Your task to perform on an android device: add a contact in the contacts app Image 0: 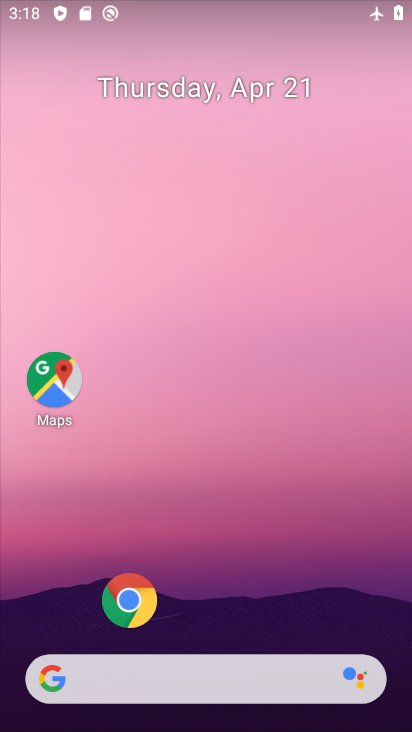
Step 0: drag from (226, 608) to (276, 252)
Your task to perform on an android device: add a contact in the contacts app Image 1: 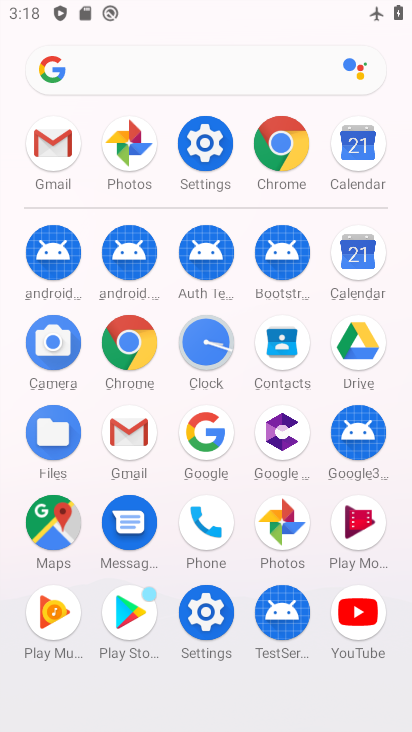
Step 1: click (285, 336)
Your task to perform on an android device: add a contact in the contacts app Image 2: 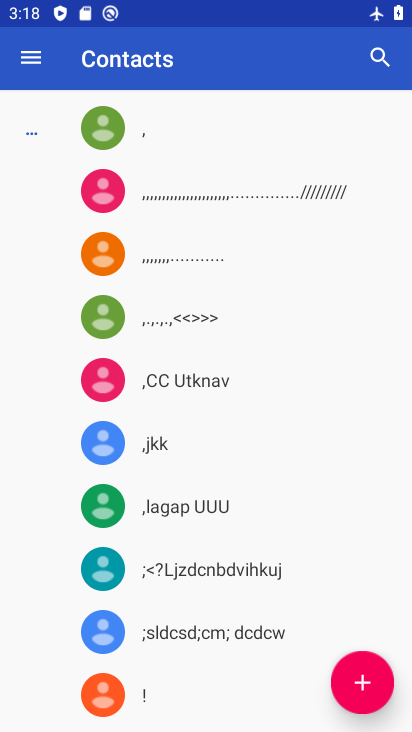
Step 2: click (373, 681)
Your task to perform on an android device: add a contact in the contacts app Image 3: 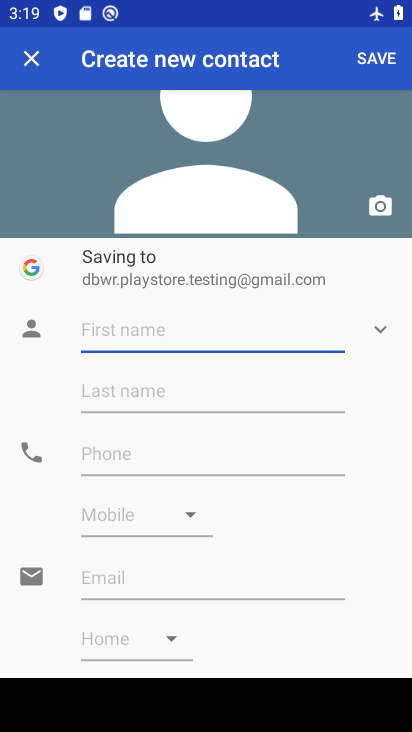
Step 3: click (140, 328)
Your task to perform on an android device: add a contact in the contacts app Image 4: 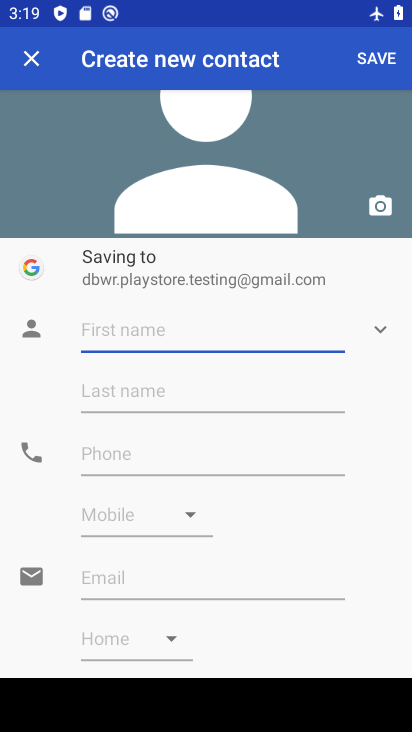
Step 4: type "fgfgffffff"
Your task to perform on an android device: add a contact in the contacts app Image 5: 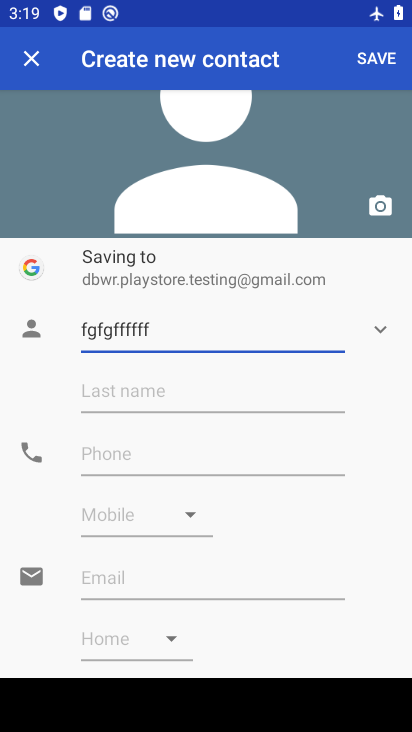
Step 5: click (373, 61)
Your task to perform on an android device: add a contact in the contacts app Image 6: 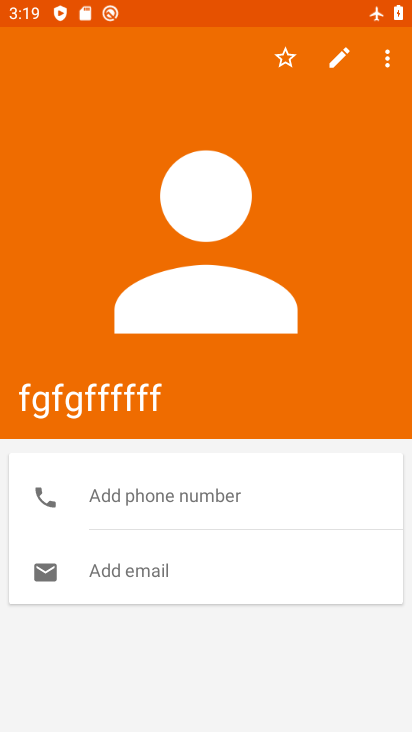
Step 6: task complete